Your task to perform on an android device: Go to Yahoo.com Image 0: 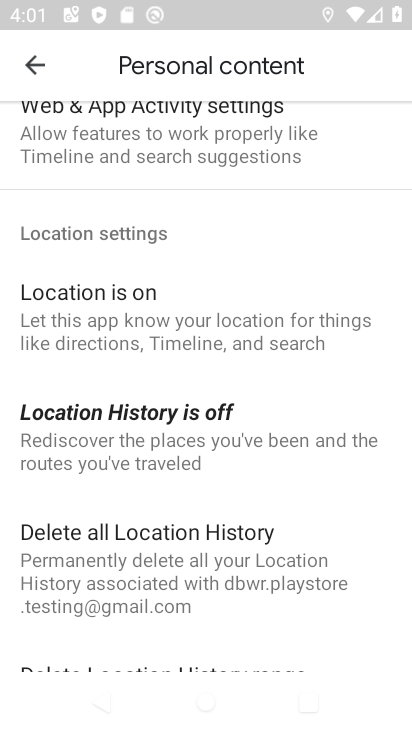
Step 0: press home button
Your task to perform on an android device: Go to Yahoo.com Image 1: 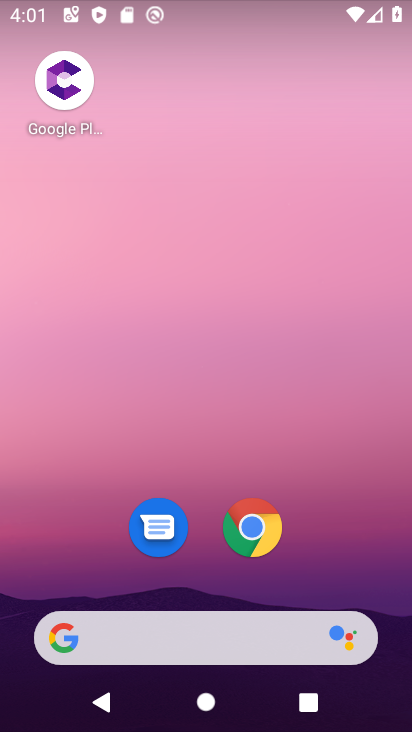
Step 1: drag from (300, 579) to (287, 165)
Your task to perform on an android device: Go to Yahoo.com Image 2: 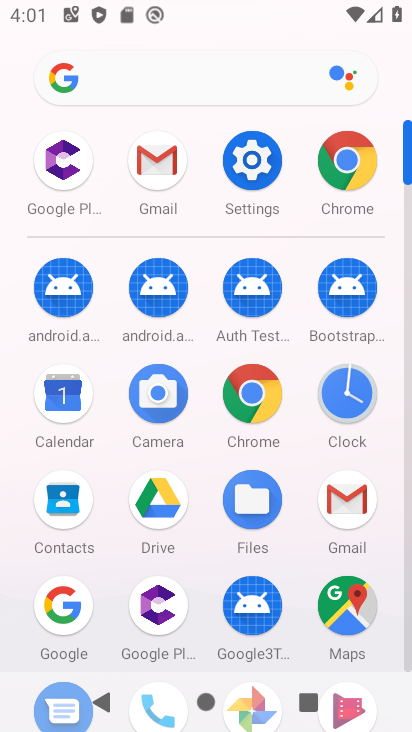
Step 2: click (246, 391)
Your task to perform on an android device: Go to Yahoo.com Image 3: 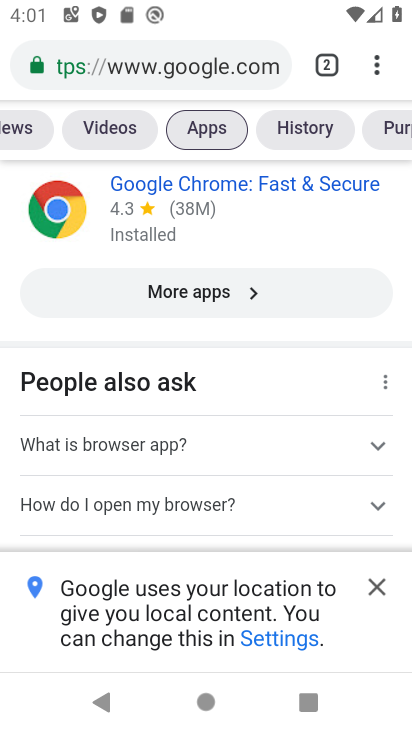
Step 3: click (114, 57)
Your task to perform on an android device: Go to Yahoo.com Image 4: 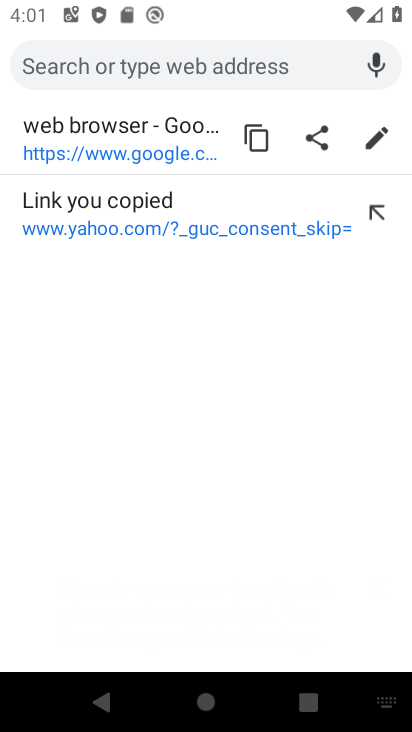
Step 4: type " Yahoo.com"
Your task to perform on an android device: Go to Yahoo.com Image 5: 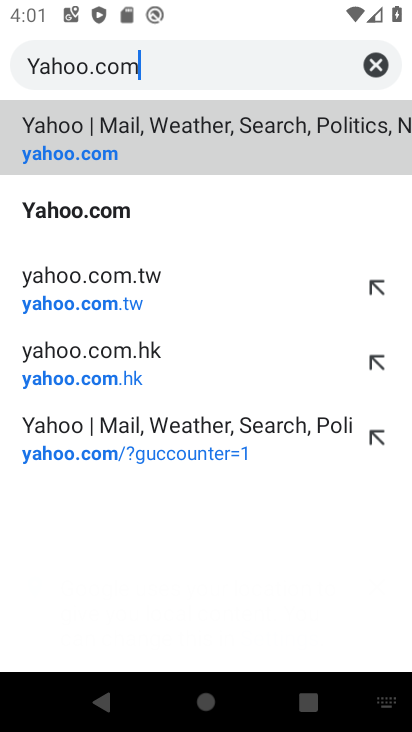
Step 5: click (56, 148)
Your task to perform on an android device: Go to Yahoo.com Image 6: 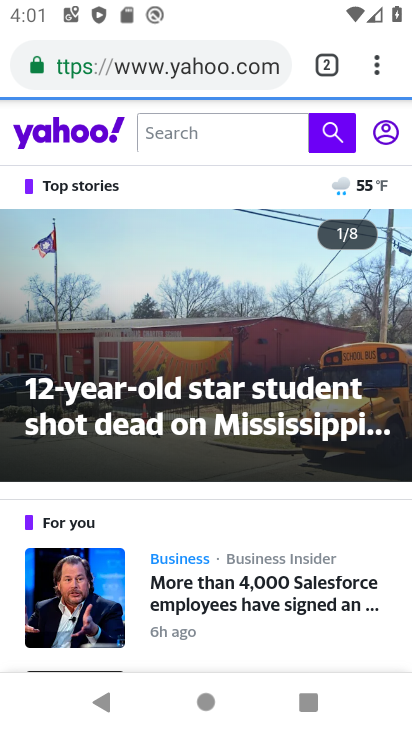
Step 6: task complete